Your task to perform on an android device: Go to Reddit.com Image 0: 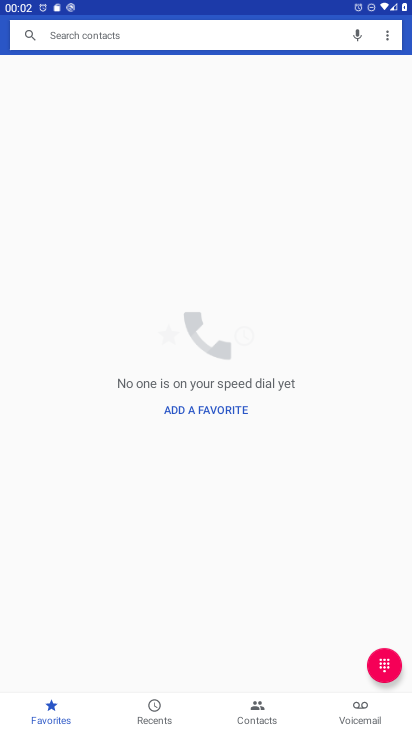
Step 0: press home button
Your task to perform on an android device: Go to Reddit.com Image 1: 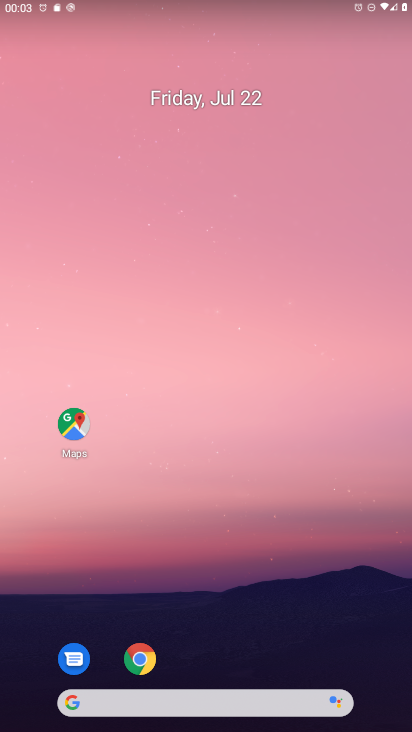
Step 1: click (142, 662)
Your task to perform on an android device: Go to Reddit.com Image 2: 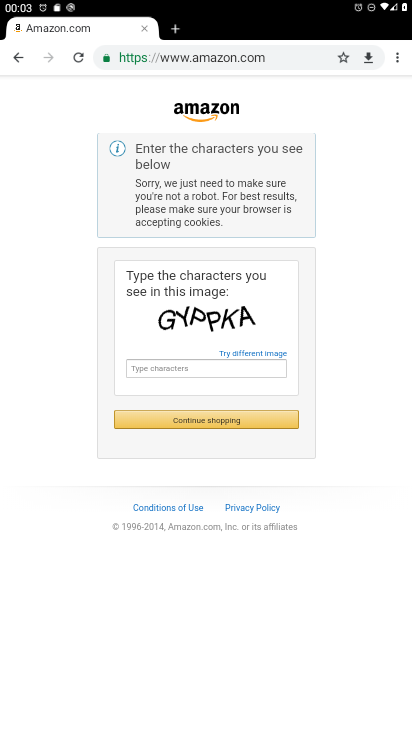
Step 2: click (290, 58)
Your task to perform on an android device: Go to Reddit.com Image 3: 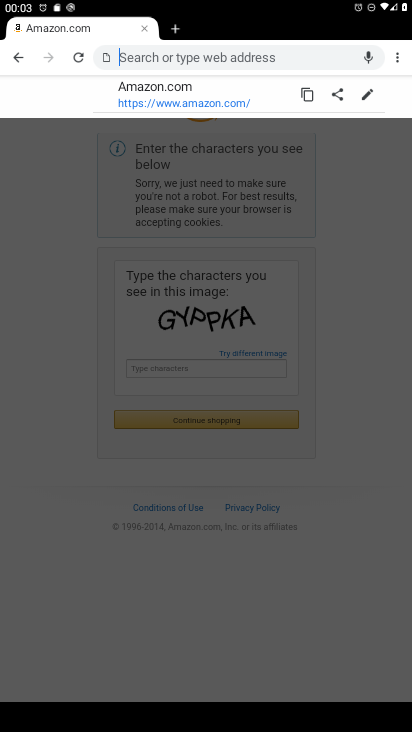
Step 3: type "Reddt.com"
Your task to perform on an android device: Go to Reddit.com Image 4: 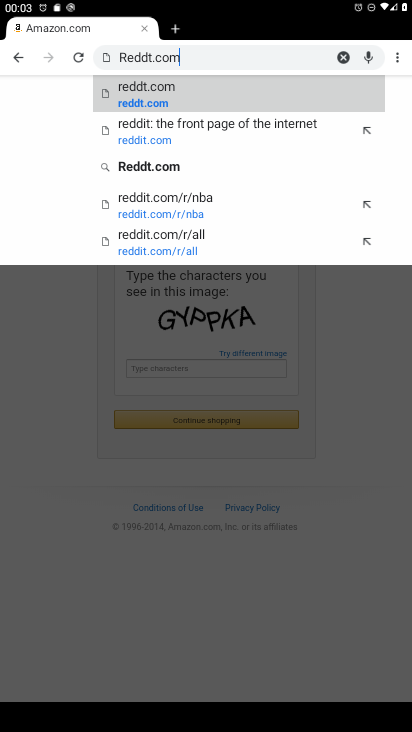
Step 4: click (142, 163)
Your task to perform on an android device: Go to Reddit.com Image 5: 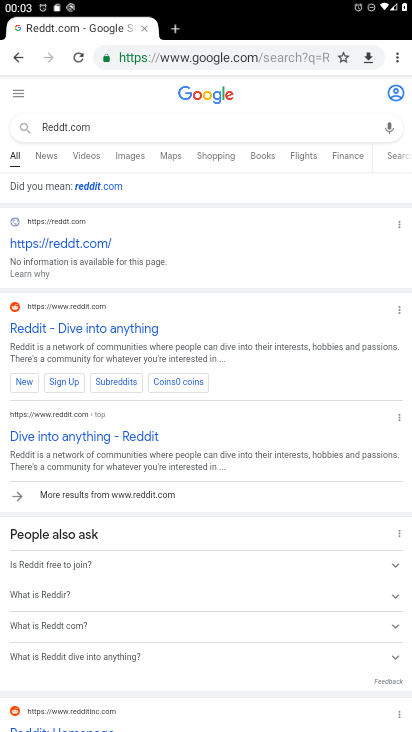
Step 5: click (55, 325)
Your task to perform on an android device: Go to Reddit.com Image 6: 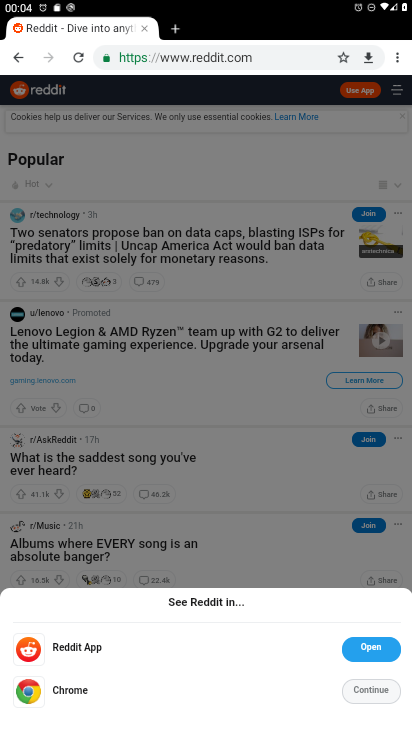
Step 6: click (365, 689)
Your task to perform on an android device: Go to Reddit.com Image 7: 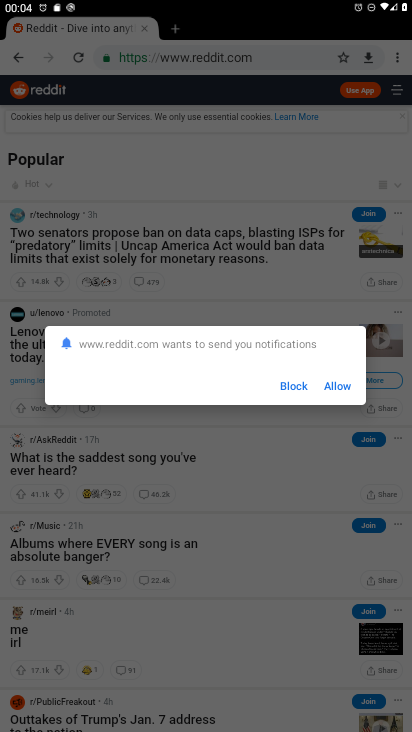
Step 7: click (339, 386)
Your task to perform on an android device: Go to Reddit.com Image 8: 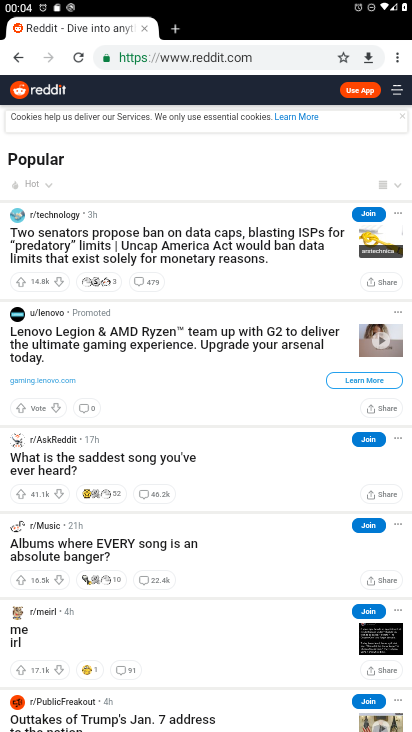
Step 8: task complete